Your task to perform on an android device: add a label to a message in the gmail app Image 0: 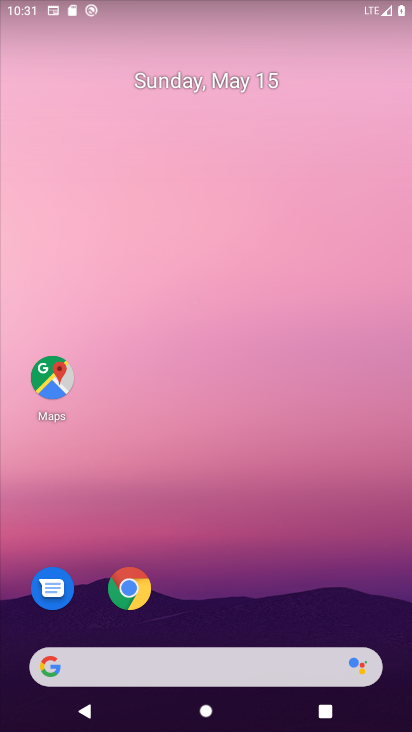
Step 0: drag from (216, 514) to (134, 179)
Your task to perform on an android device: add a label to a message in the gmail app Image 1: 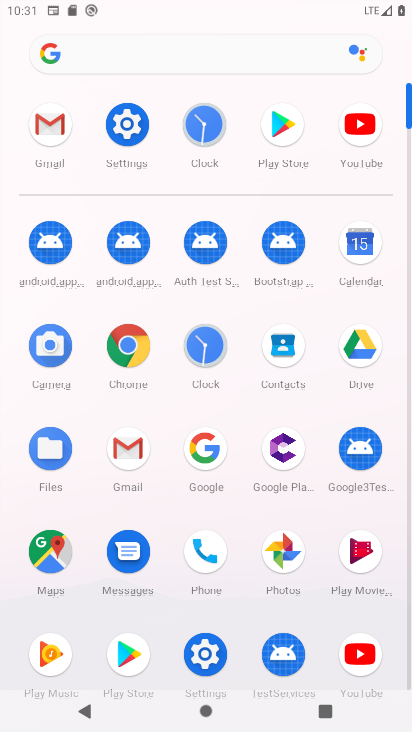
Step 1: click (128, 454)
Your task to perform on an android device: add a label to a message in the gmail app Image 2: 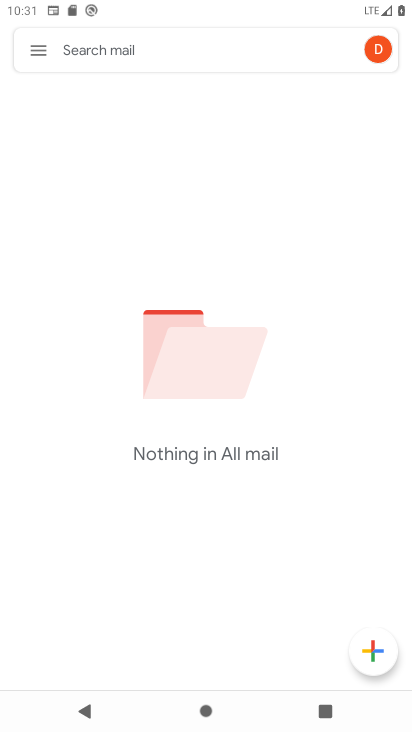
Step 2: click (39, 44)
Your task to perform on an android device: add a label to a message in the gmail app Image 3: 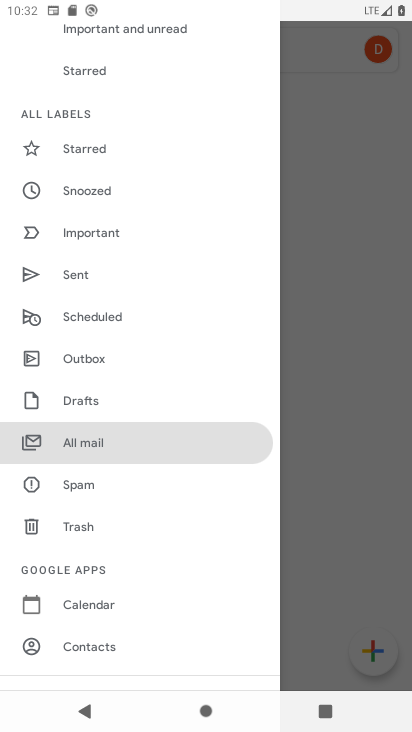
Step 3: click (155, 440)
Your task to perform on an android device: add a label to a message in the gmail app Image 4: 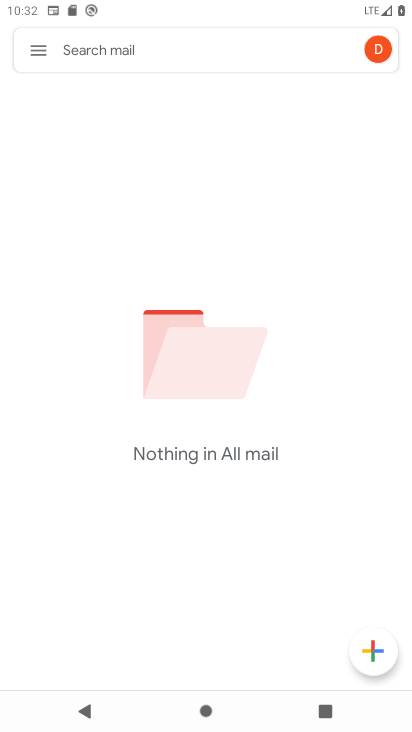
Step 4: task complete